Your task to perform on an android device: Show me popular videos on Youtube Image 0: 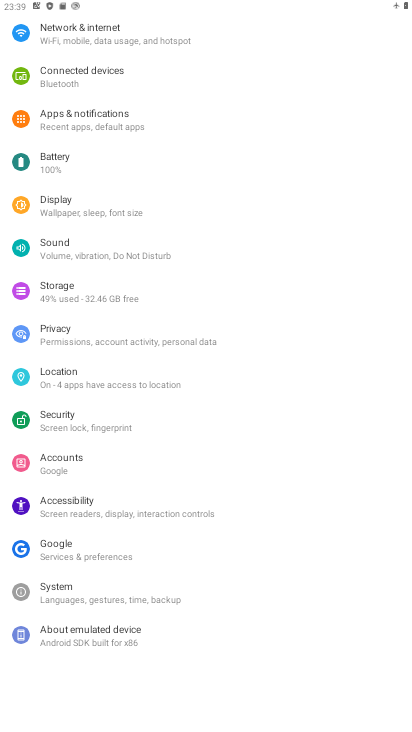
Step 0: press home button
Your task to perform on an android device: Show me popular videos on Youtube Image 1: 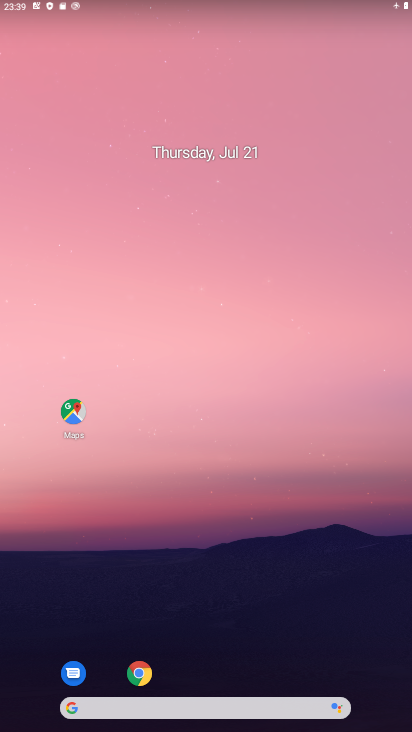
Step 1: drag from (200, 648) to (202, 128)
Your task to perform on an android device: Show me popular videos on Youtube Image 2: 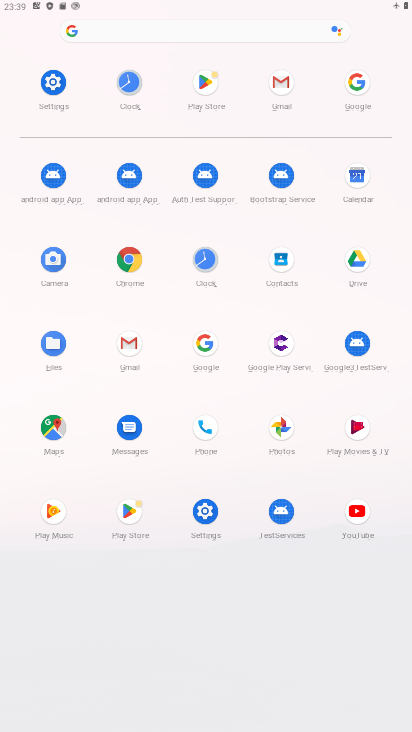
Step 2: click (353, 525)
Your task to perform on an android device: Show me popular videos on Youtube Image 3: 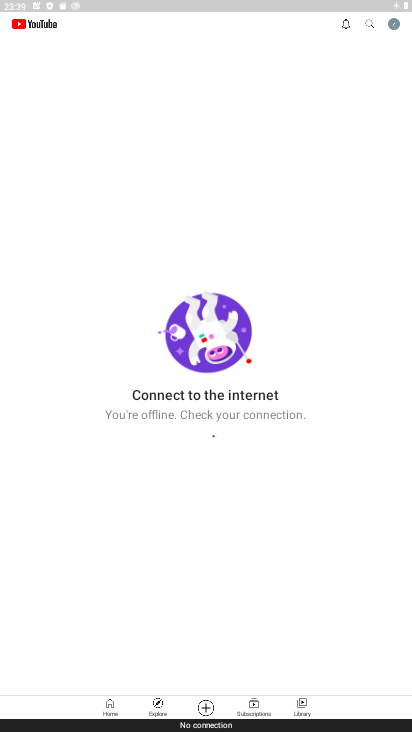
Step 3: click (369, 25)
Your task to perform on an android device: Show me popular videos on Youtube Image 4: 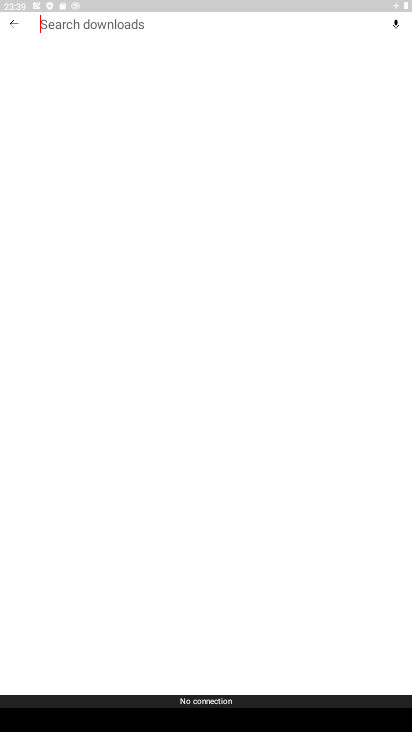
Step 4: click (21, 18)
Your task to perform on an android device: Show me popular videos on Youtube Image 5: 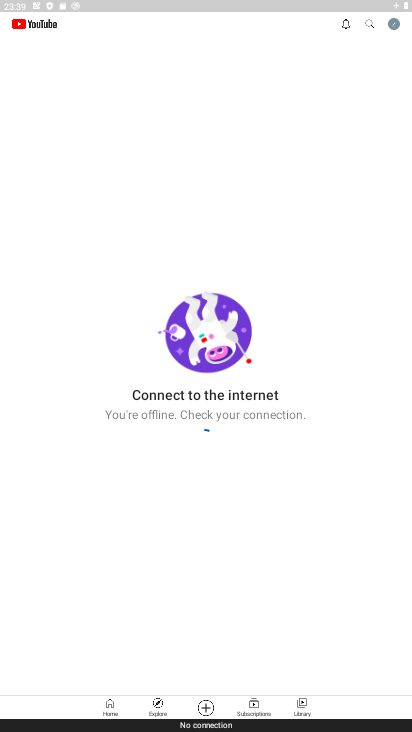
Step 5: click (365, 17)
Your task to perform on an android device: Show me popular videos on Youtube Image 6: 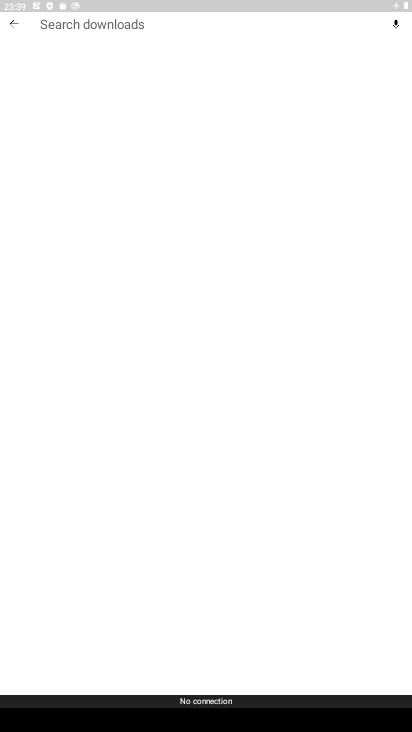
Step 6: type "popular videos"
Your task to perform on an android device: Show me popular videos on Youtube Image 7: 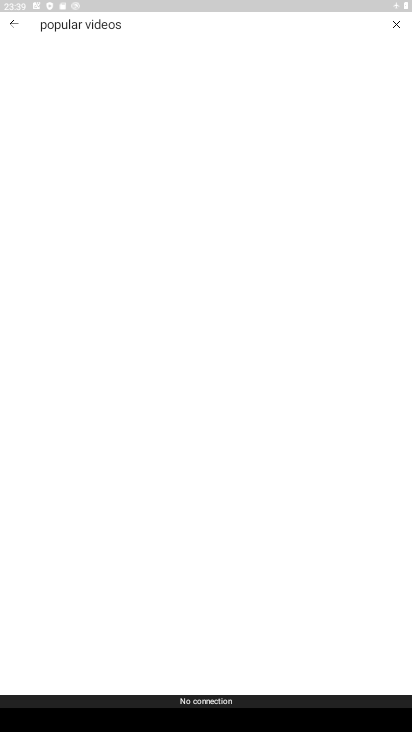
Step 7: press back button
Your task to perform on an android device: Show me popular videos on Youtube Image 8: 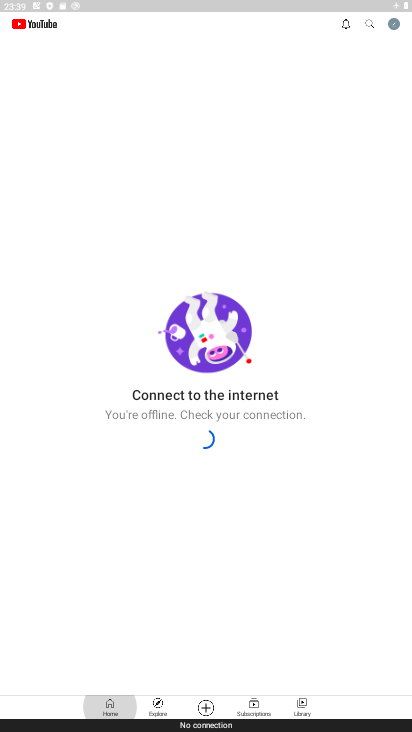
Step 8: click (375, 30)
Your task to perform on an android device: Show me popular videos on Youtube Image 9: 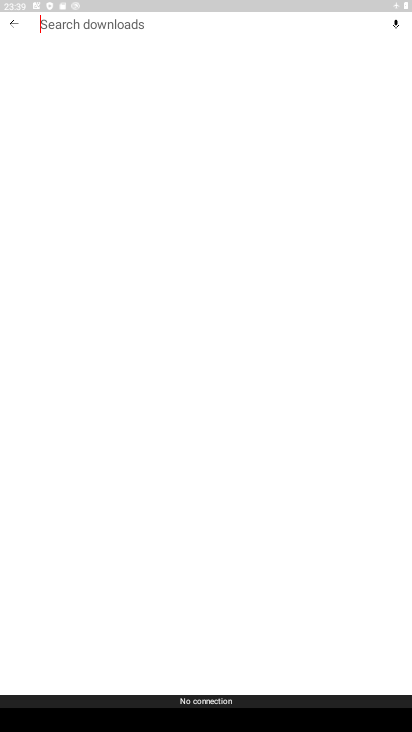
Step 9: task complete